Your task to perform on an android device: Open internet settings Image 0: 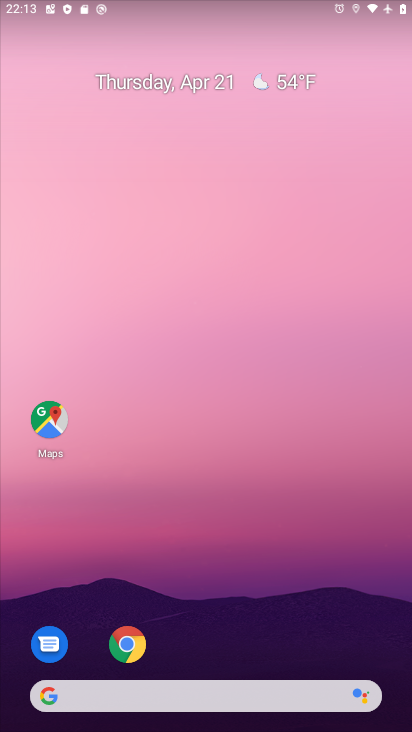
Step 0: drag from (200, 517) to (101, 63)
Your task to perform on an android device: Open internet settings Image 1: 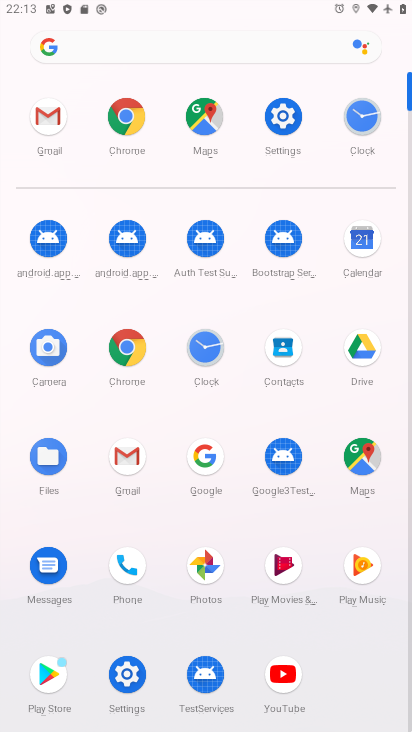
Step 1: click (290, 117)
Your task to perform on an android device: Open internet settings Image 2: 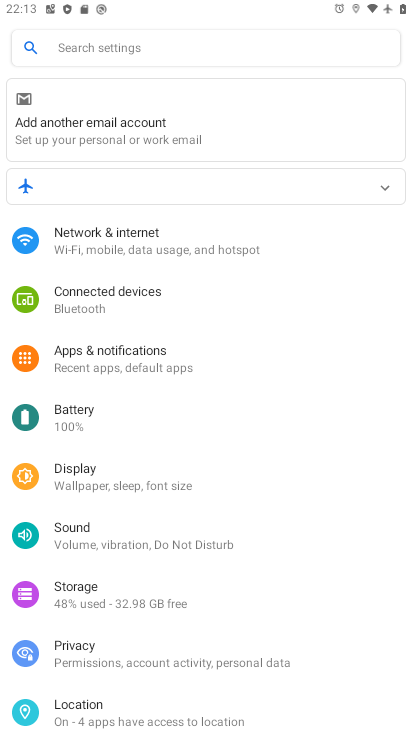
Step 2: click (94, 239)
Your task to perform on an android device: Open internet settings Image 3: 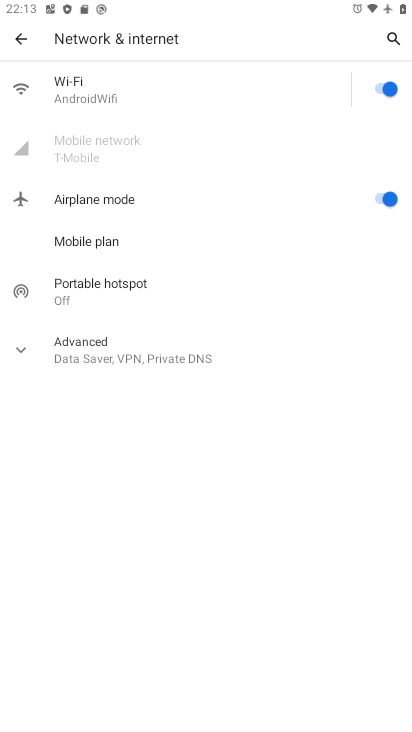
Step 3: task complete